Your task to perform on an android device: Clear the shopping cart on ebay.com. Image 0: 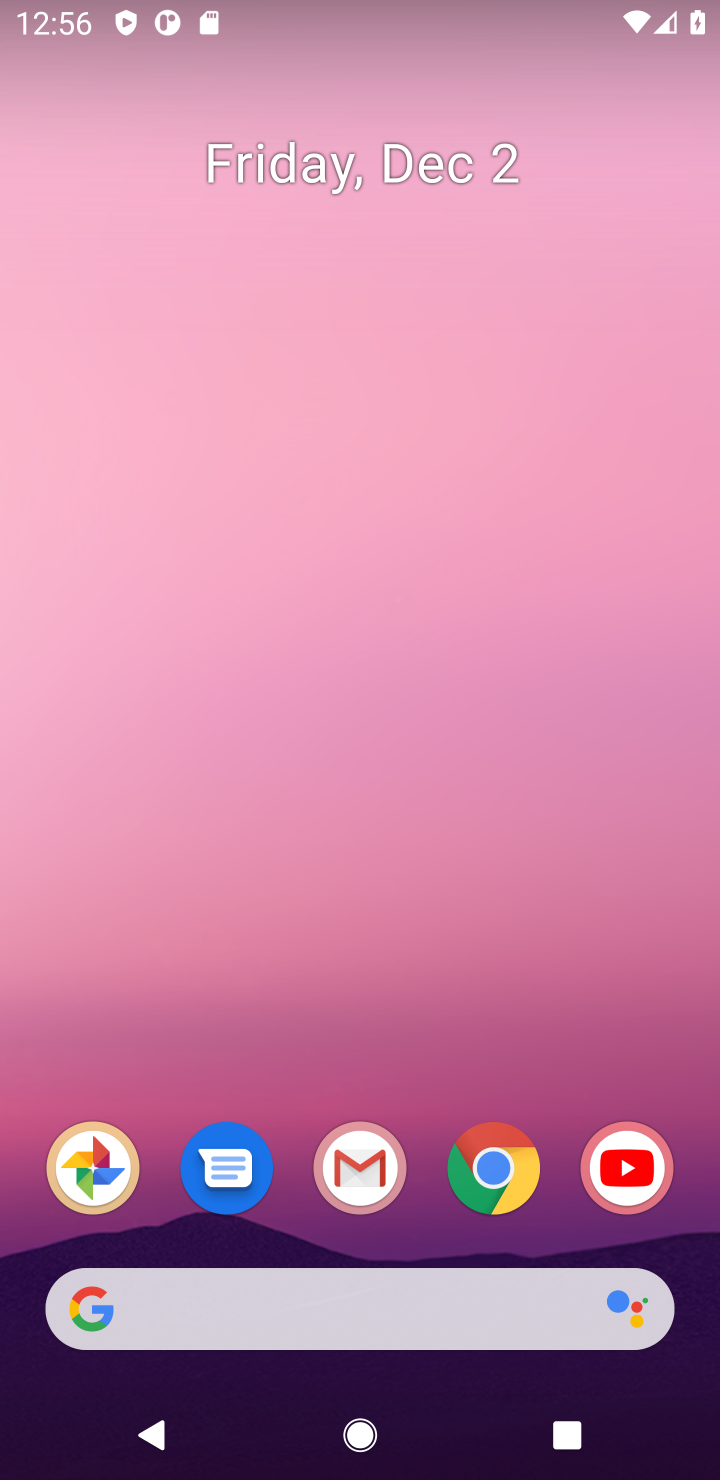
Step 0: click (494, 1184)
Your task to perform on an android device: Clear the shopping cart on ebay.com. Image 1: 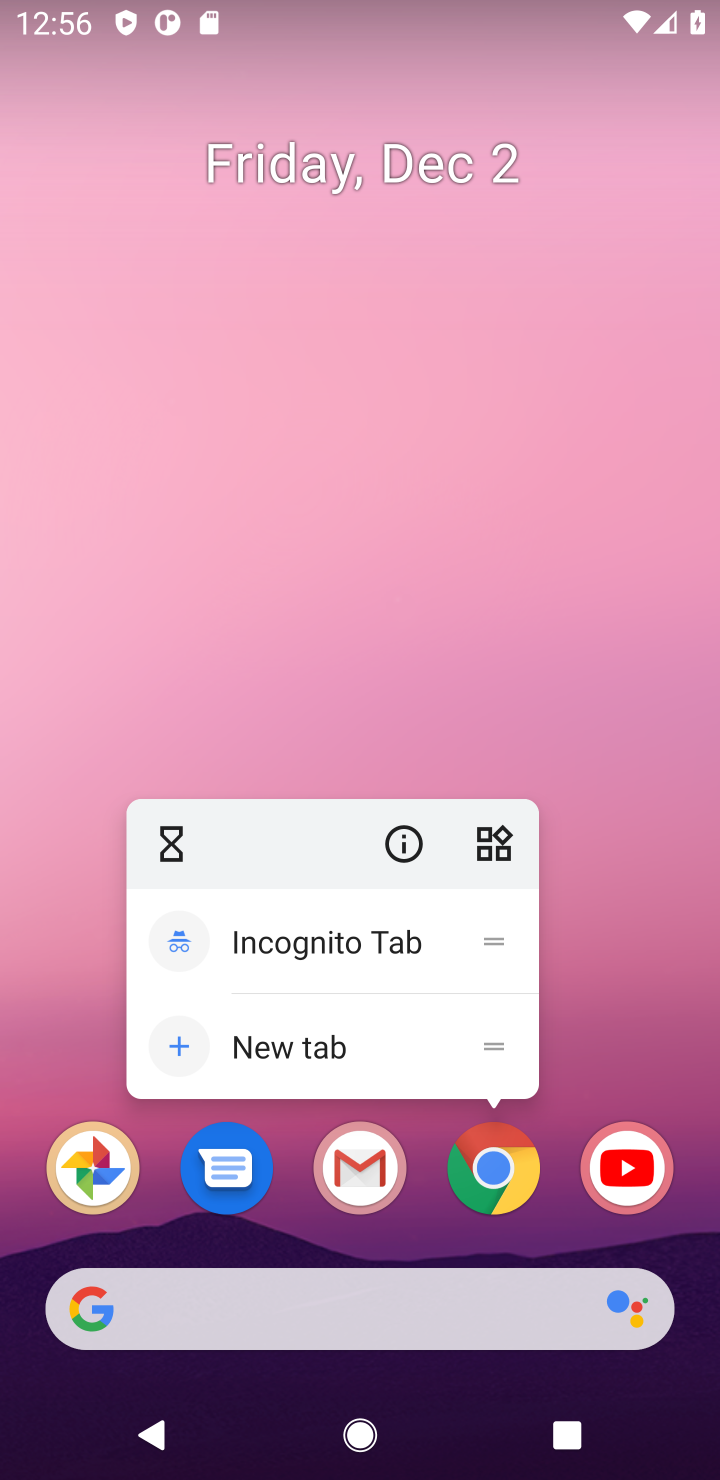
Step 1: click (97, 1308)
Your task to perform on an android device: Clear the shopping cart on ebay.com. Image 2: 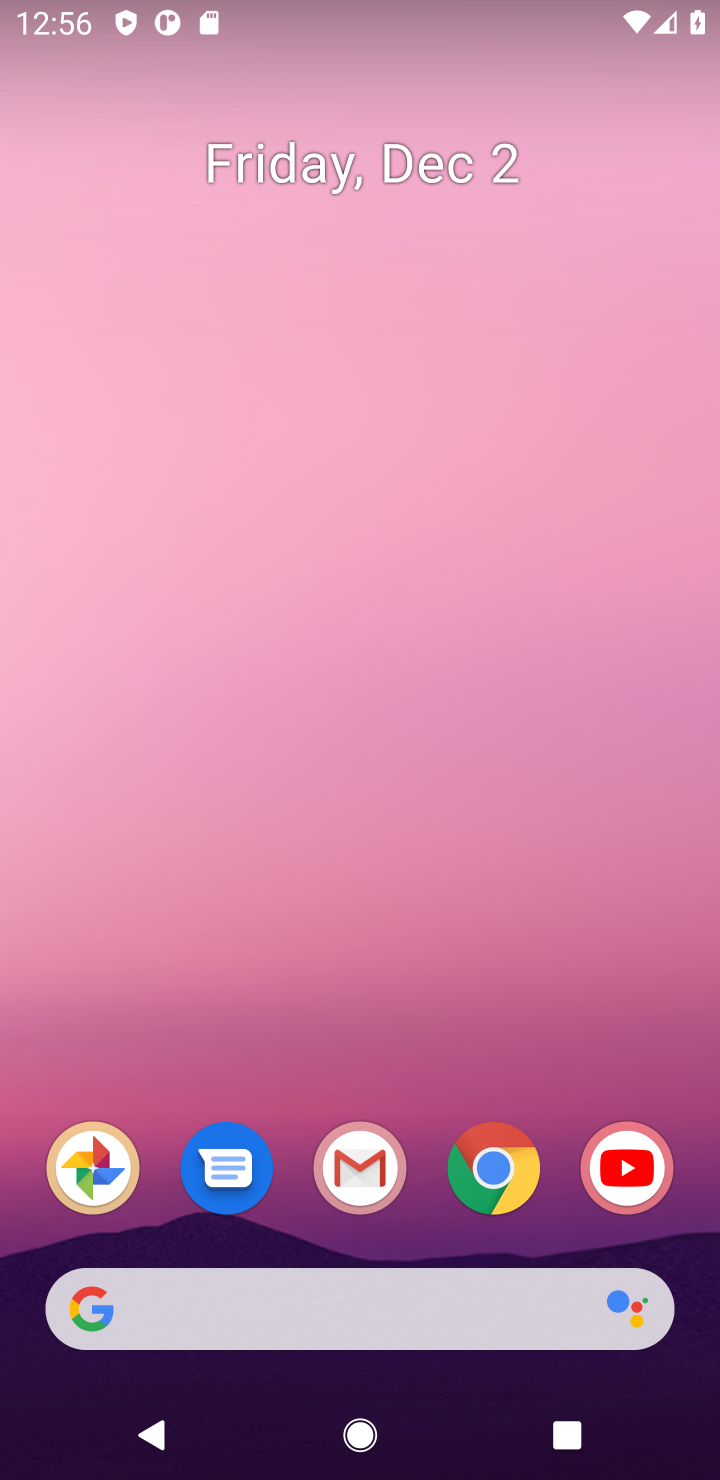
Step 2: click (97, 1308)
Your task to perform on an android device: Clear the shopping cart on ebay.com. Image 3: 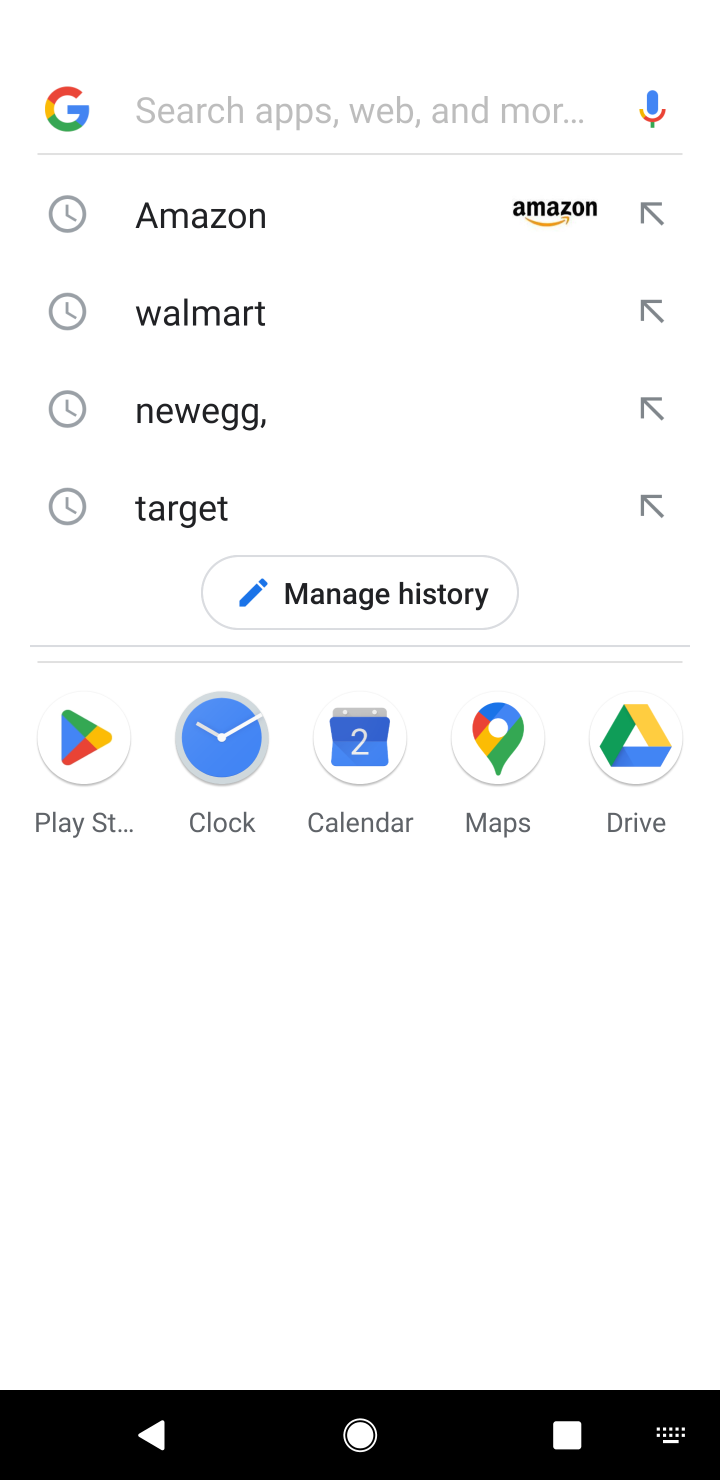
Step 3: click (276, 87)
Your task to perform on an android device: Clear the shopping cart on ebay.com. Image 4: 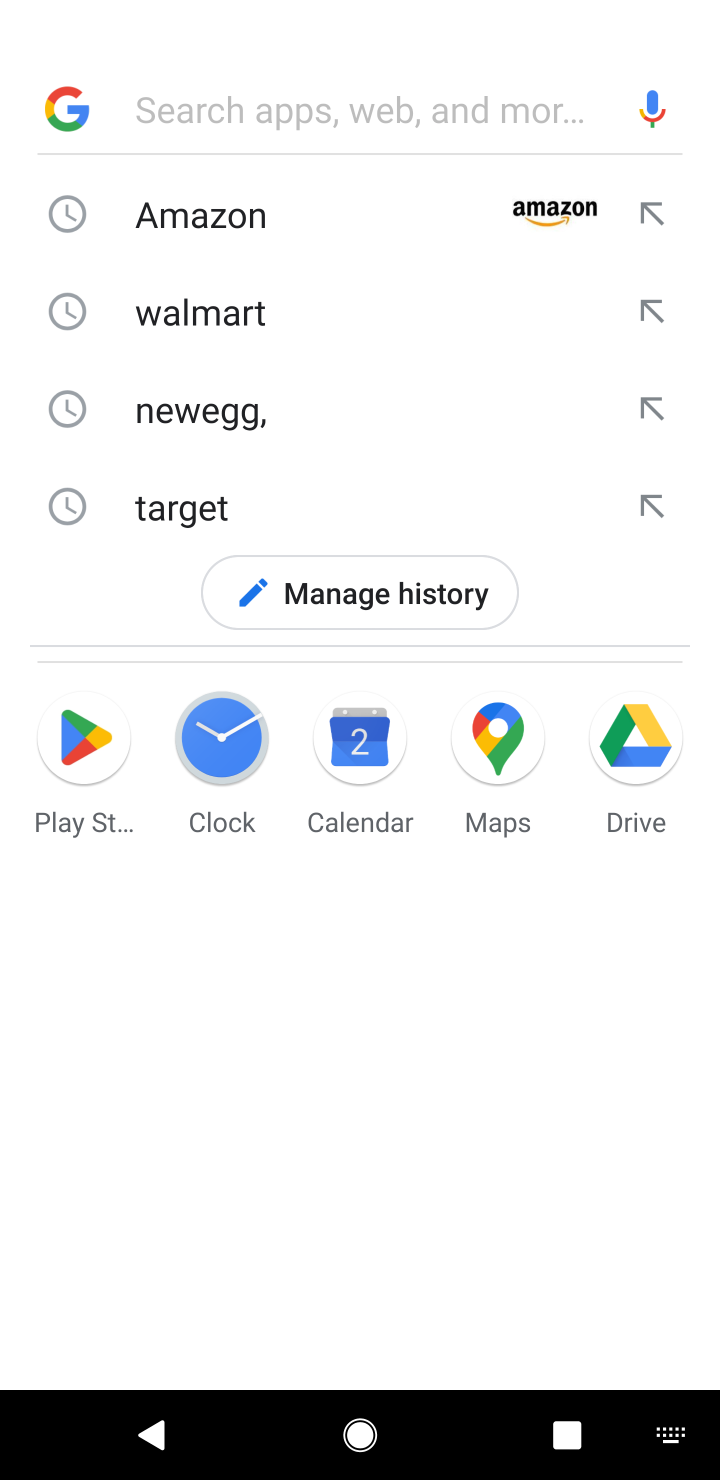
Step 4: type "ebay.com"
Your task to perform on an android device: Clear the shopping cart on ebay.com. Image 5: 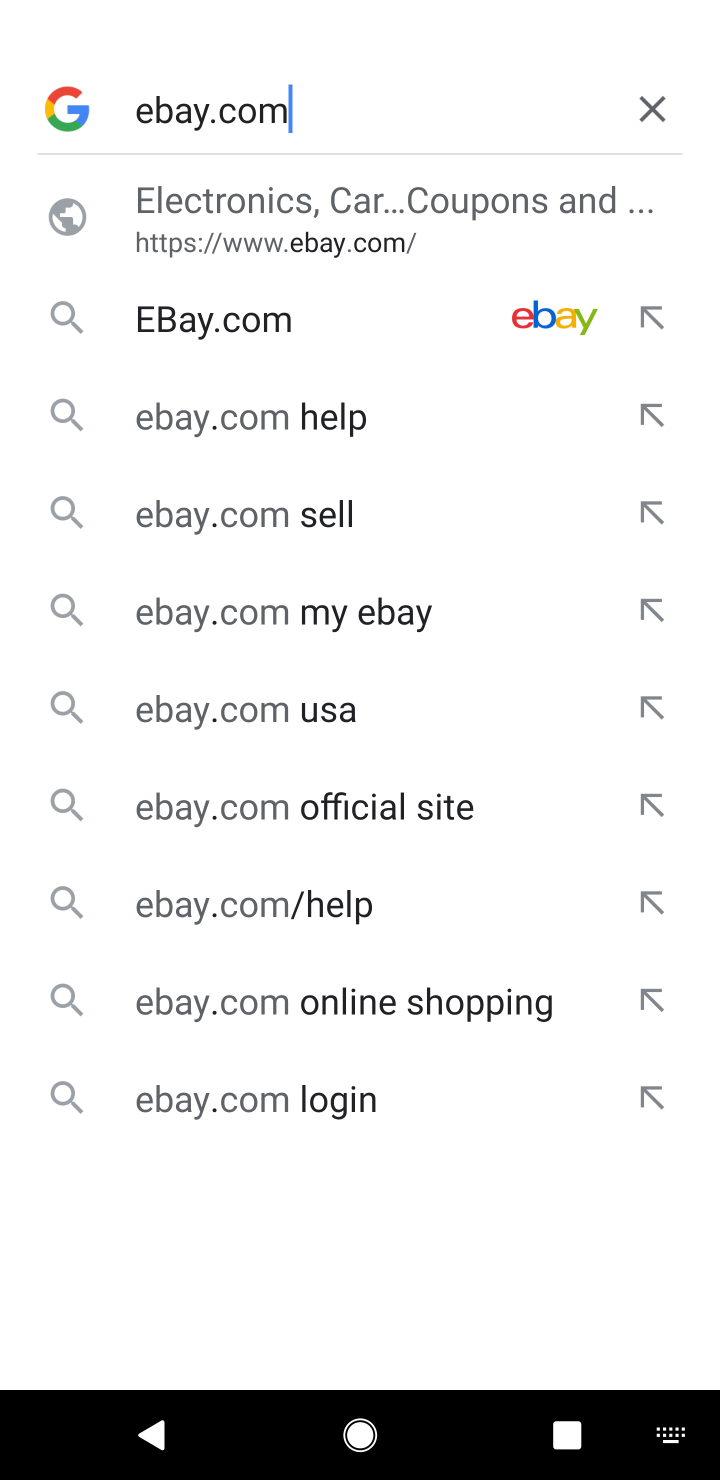
Step 5: click (225, 312)
Your task to perform on an android device: Clear the shopping cart on ebay.com. Image 6: 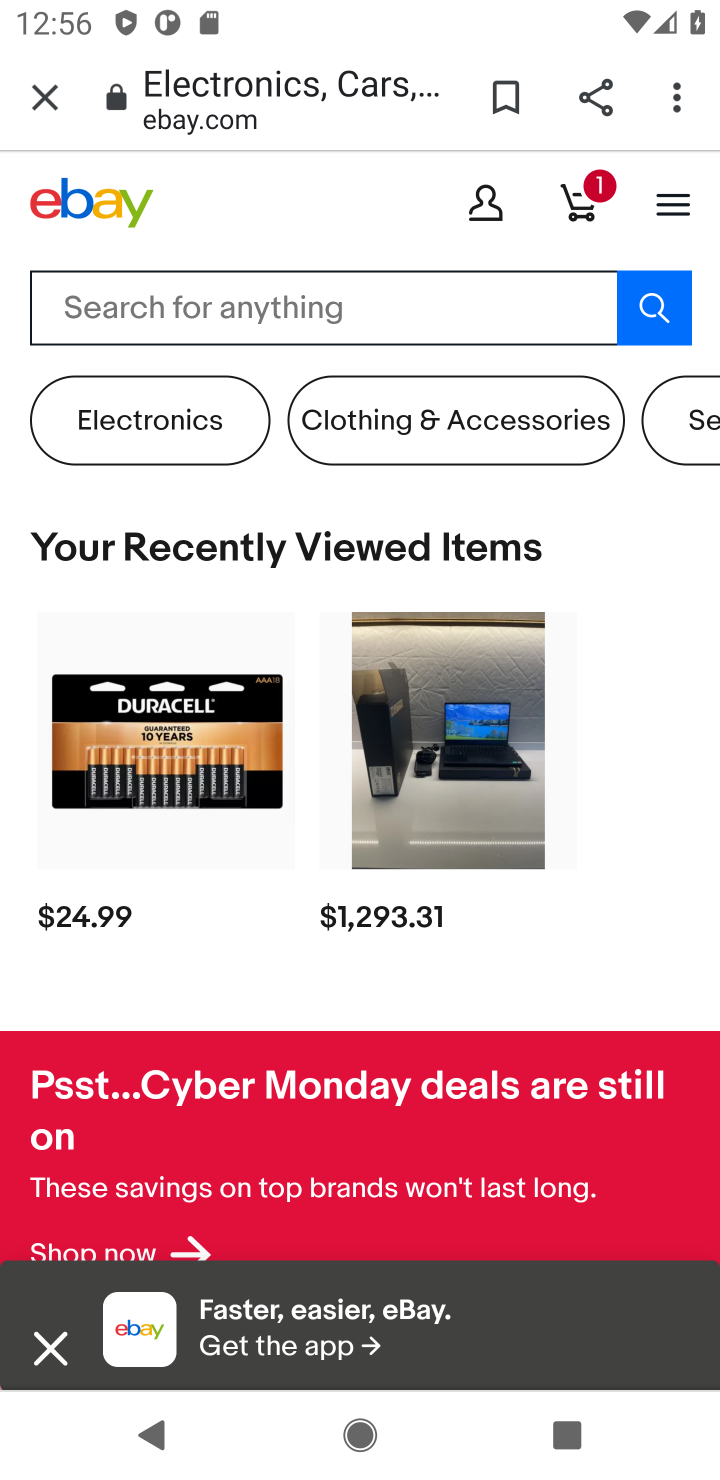
Step 6: click (575, 202)
Your task to perform on an android device: Clear the shopping cart on ebay.com. Image 7: 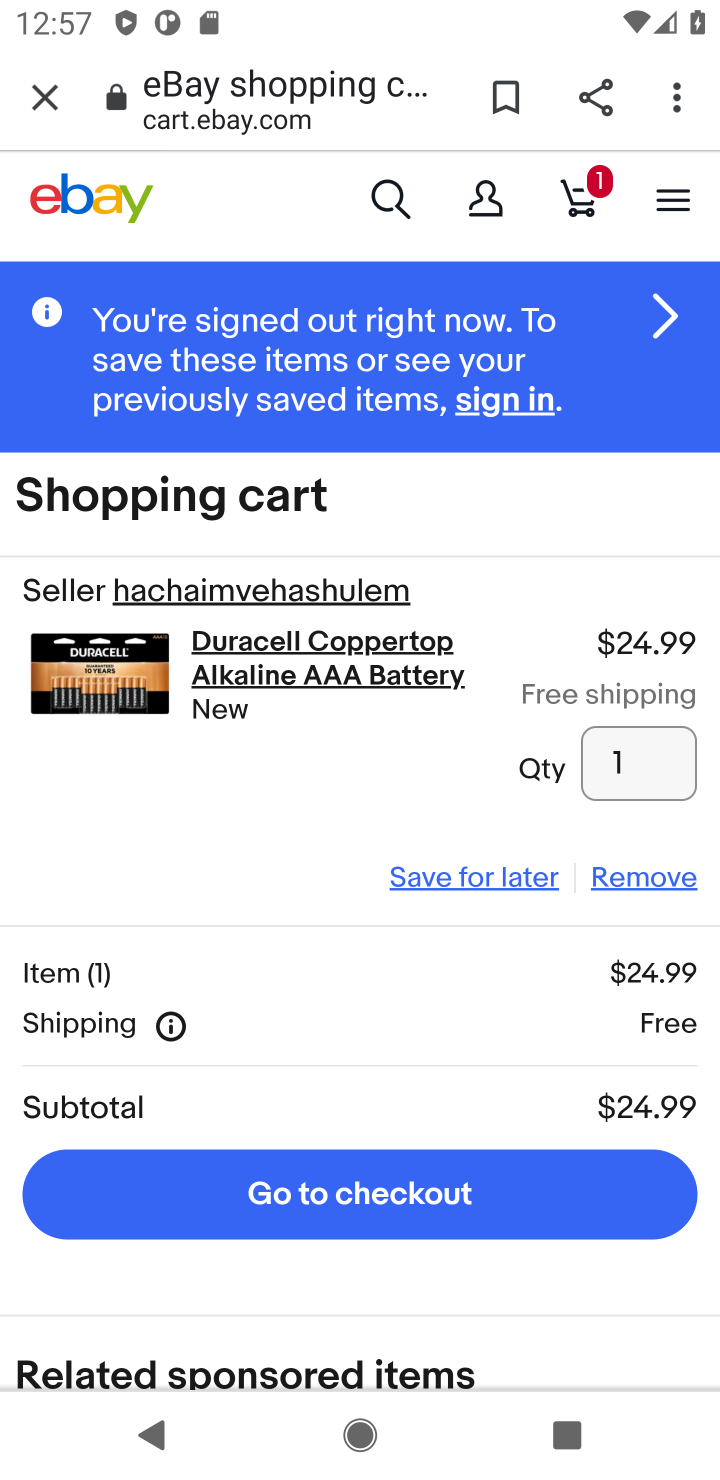
Step 7: click (643, 887)
Your task to perform on an android device: Clear the shopping cart on ebay.com. Image 8: 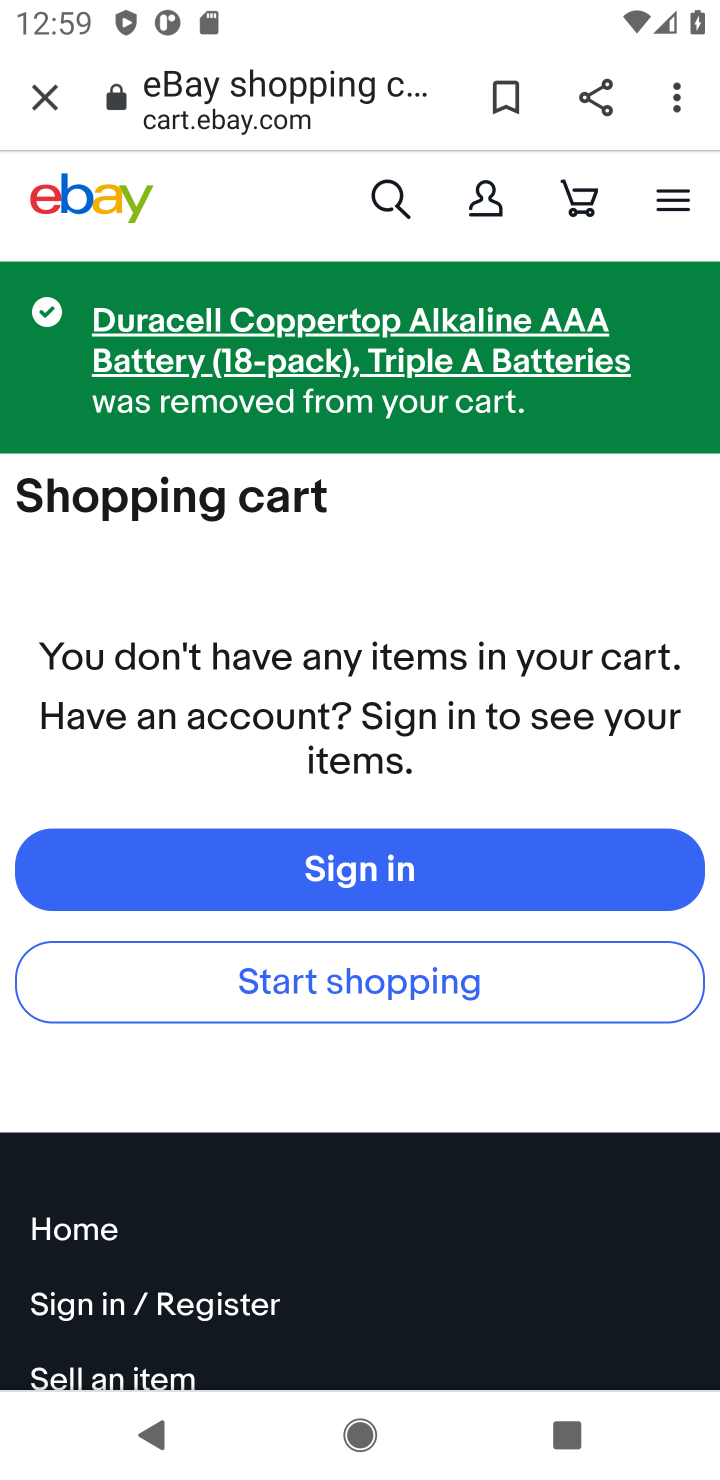
Step 8: task complete